Your task to perform on an android device: turn pop-ups on in chrome Image 0: 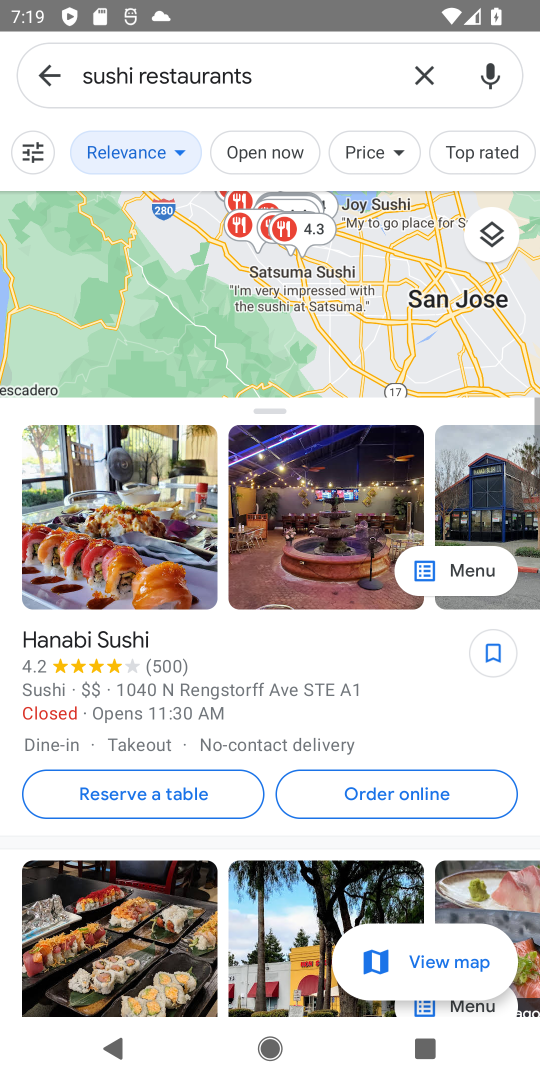
Step 0: press home button
Your task to perform on an android device: turn pop-ups on in chrome Image 1: 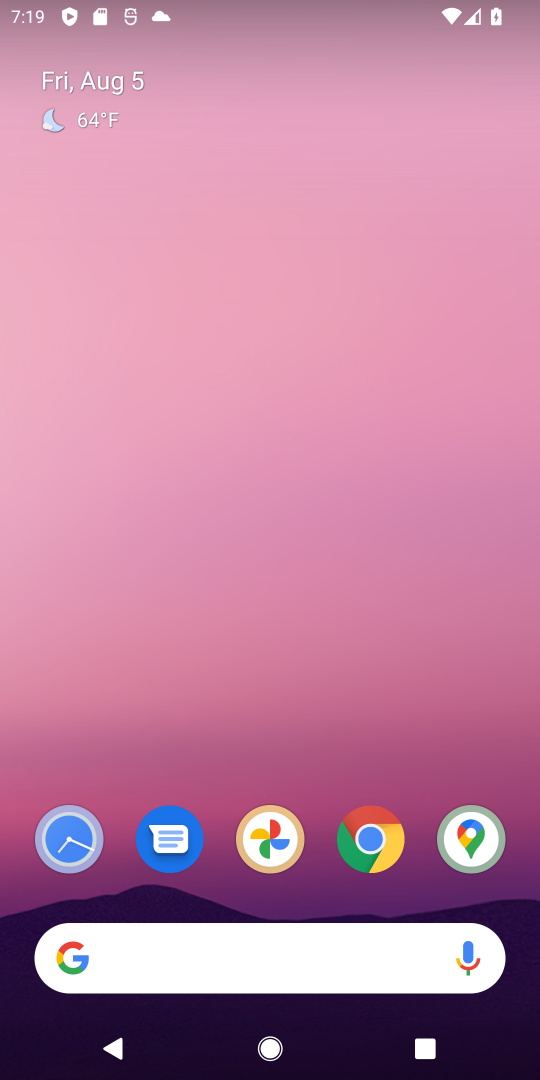
Step 1: click (379, 832)
Your task to perform on an android device: turn pop-ups on in chrome Image 2: 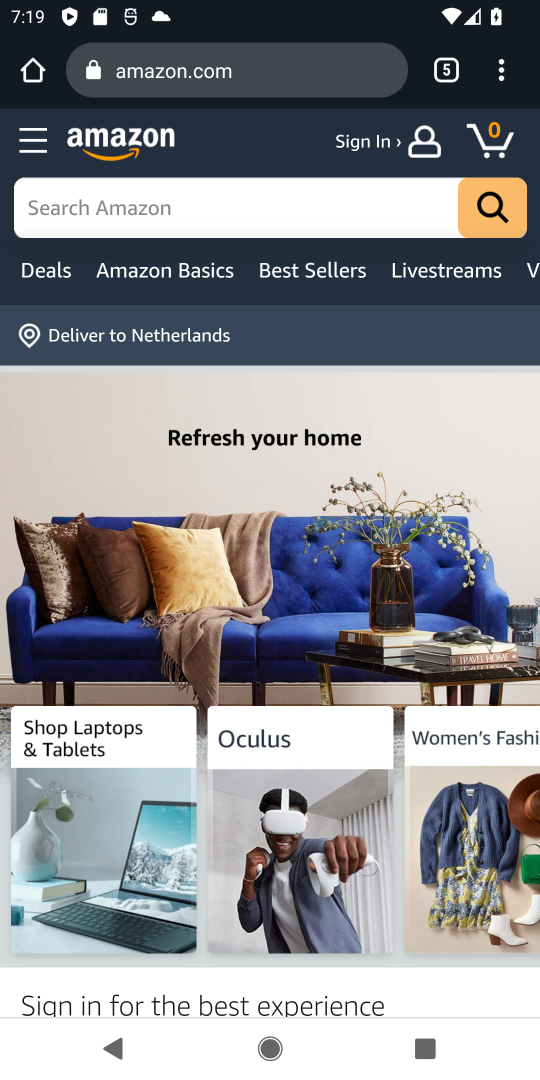
Step 2: click (506, 82)
Your task to perform on an android device: turn pop-ups on in chrome Image 3: 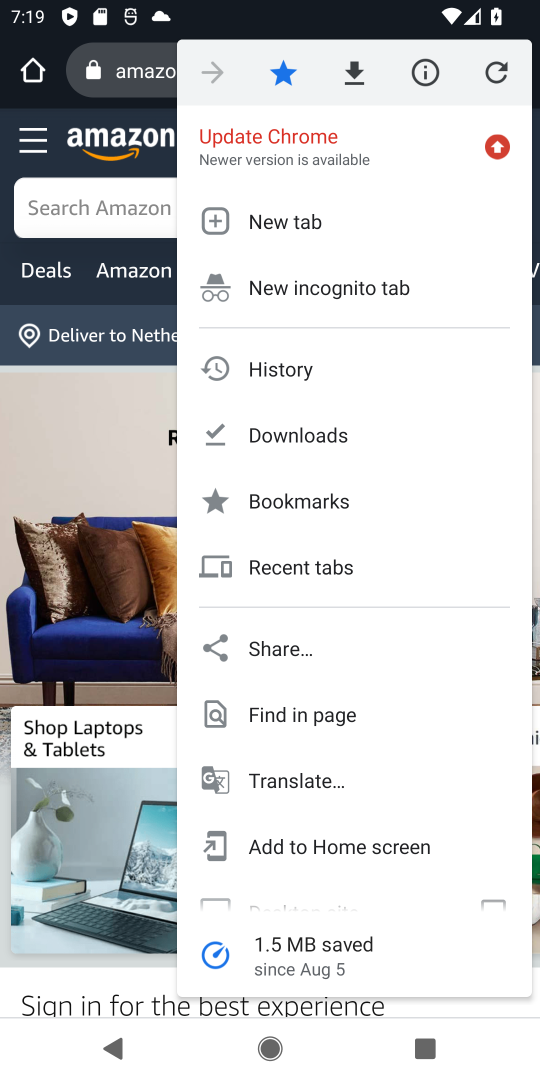
Step 3: drag from (290, 873) to (285, 423)
Your task to perform on an android device: turn pop-ups on in chrome Image 4: 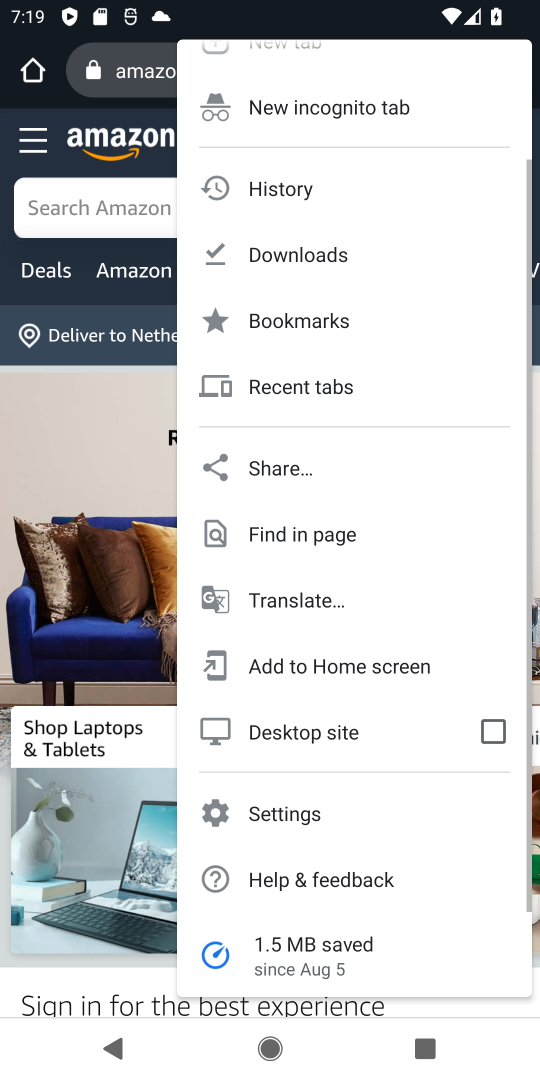
Step 4: click (297, 817)
Your task to perform on an android device: turn pop-ups on in chrome Image 5: 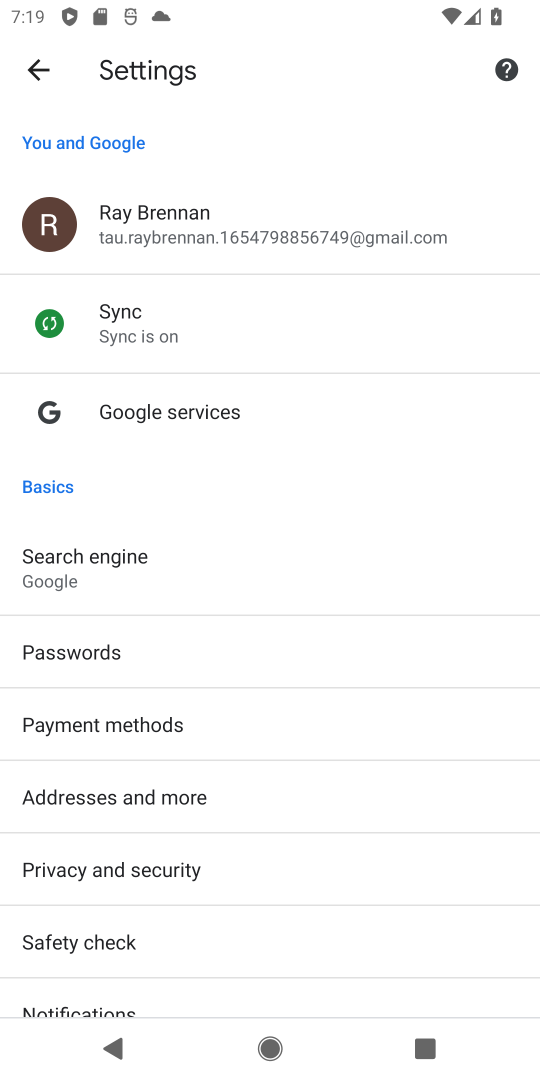
Step 5: drag from (97, 953) to (87, 547)
Your task to perform on an android device: turn pop-ups on in chrome Image 6: 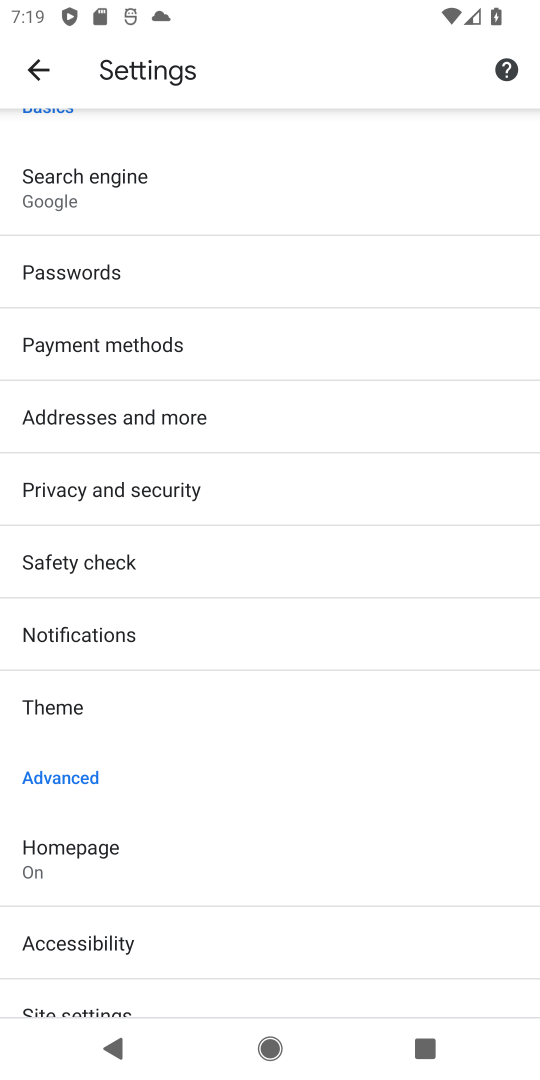
Step 6: drag from (137, 908) to (141, 395)
Your task to perform on an android device: turn pop-ups on in chrome Image 7: 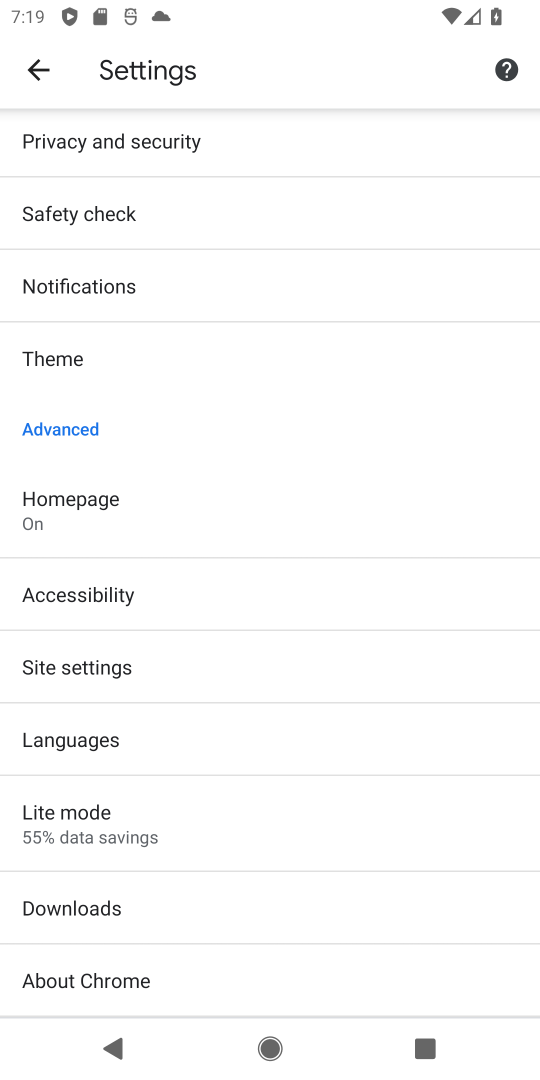
Step 7: click (93, 676)
Your task to perform on an android device: turn pop-ups on in chrome Image 8: 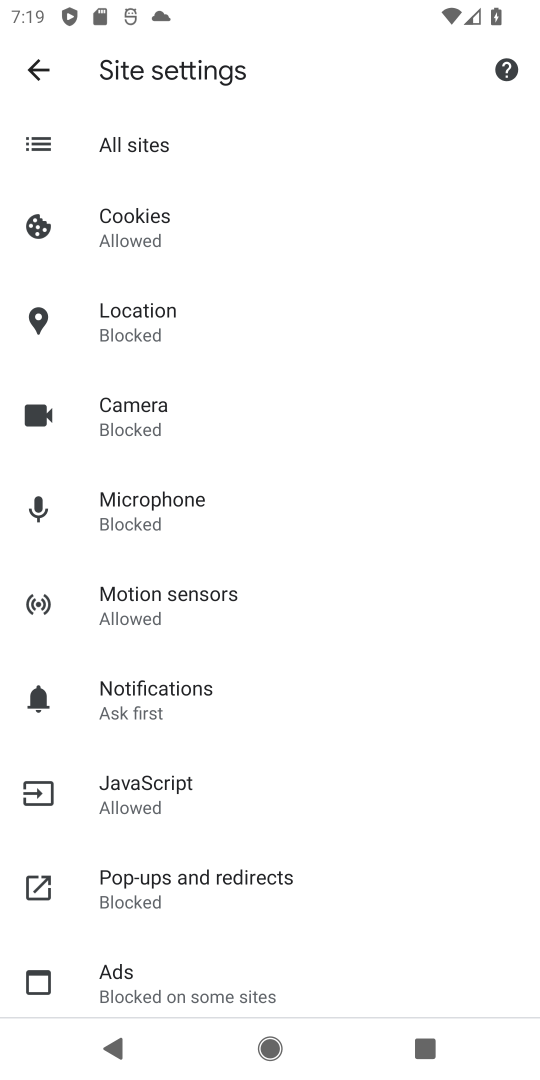
Step 8: click (129, 883)
Your task to perform on an android device: turn pop-ups on in chrome Image 9: 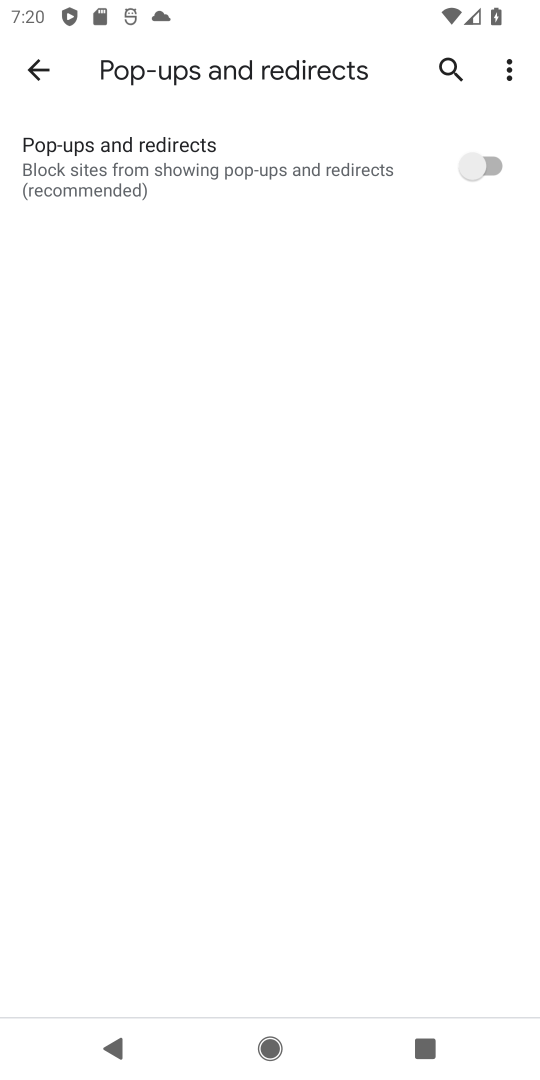
Step 9: click (491, 165)
Your task to perform on an android device: turn pop-ups on in chrome Image 10: 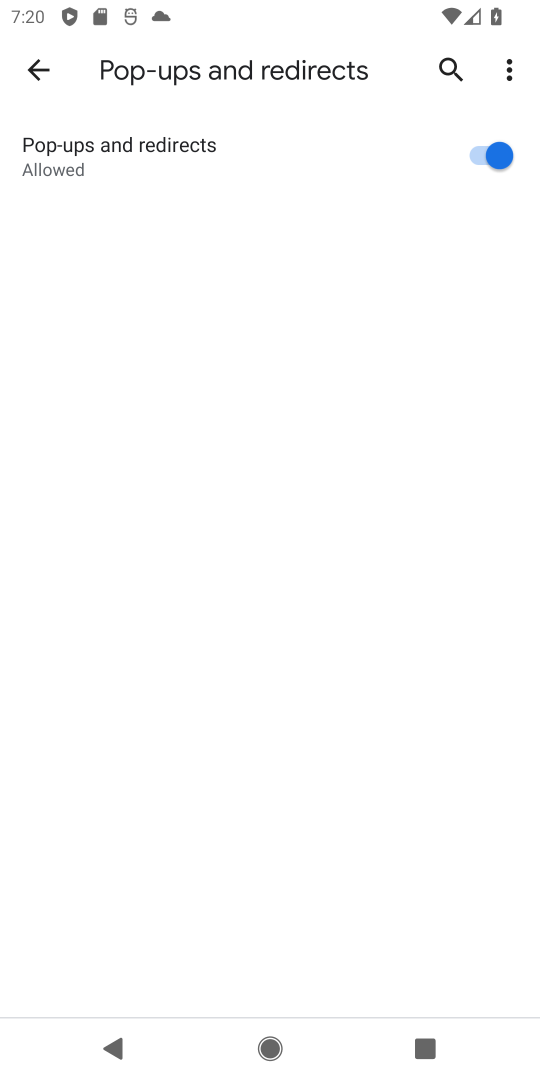
Step 10: task complete